Your task to perform on an android device: turn on airplane mode Image 0: 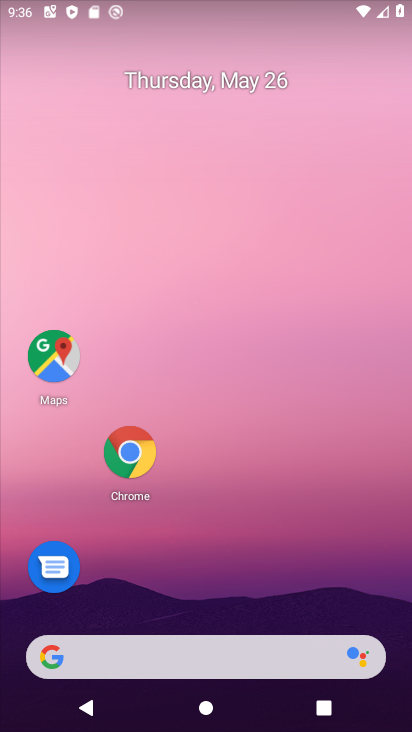
Step 0: press home button
Your task to perform on an android device: turn on airplane mode Image 1: 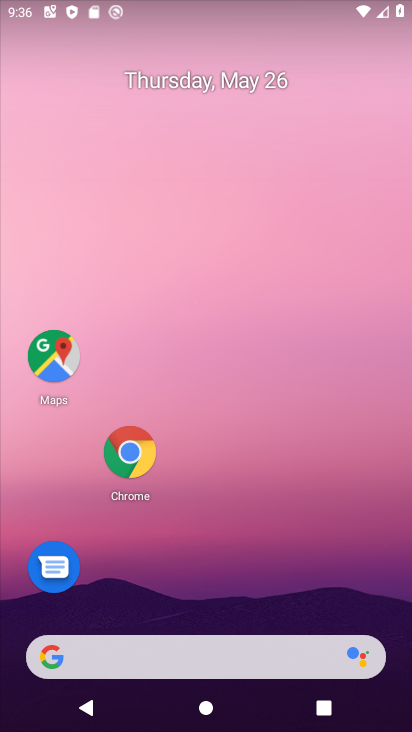
Step 1: drag from (203, 664) to (369, 19)
Your task to perform on an android device: turn on airplane mode Image 2: 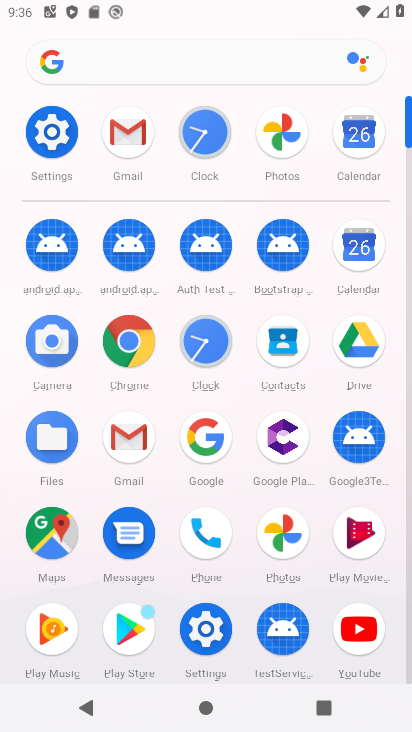
Step 2: click (59, 141)
Your task to perform on an android device: turn on airplane mode Image 3: 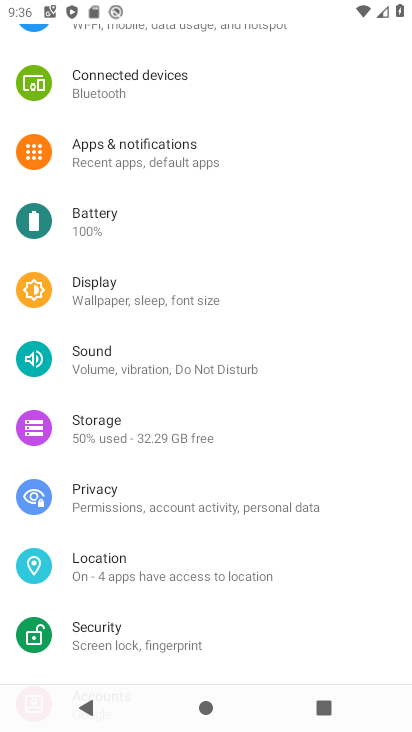
Step 3: drag from (268, 109) to (210, 552)
Your task to perform on an android device: turn on airplane mode Image 4: 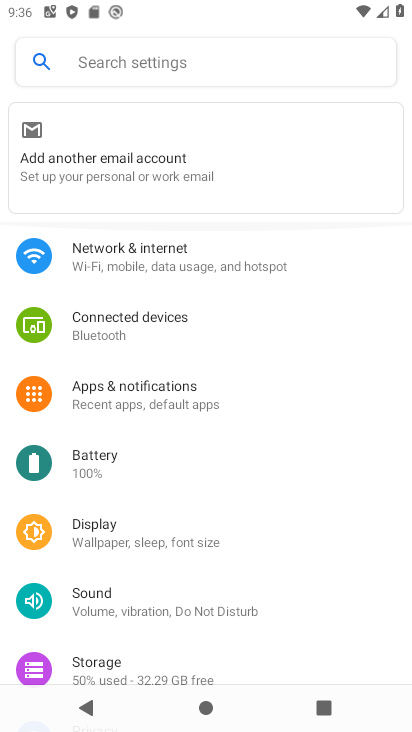
Step 4: click (213, 264)
Your task to perform on an android device: turn on airplane mode Image 5: 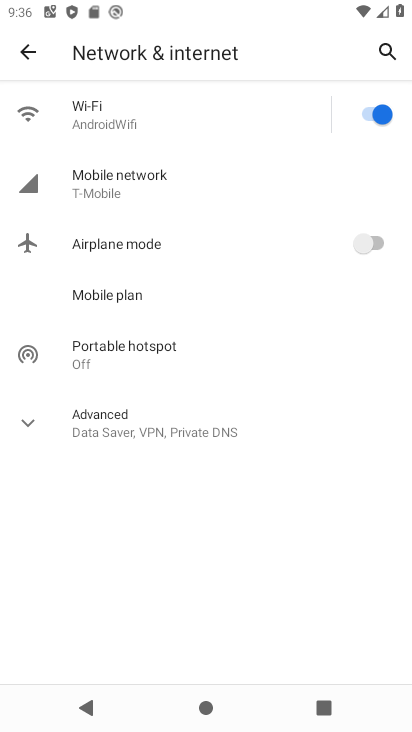
Step 5: click (382, 240)
Your task to perform on an android device: turn on airplane mode Image 6: 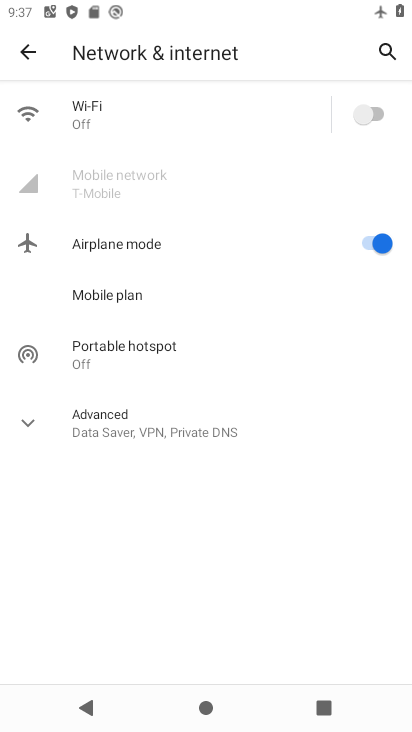
Step 6: task complete